Your task to perform on an android device: toggle location history Image 0: 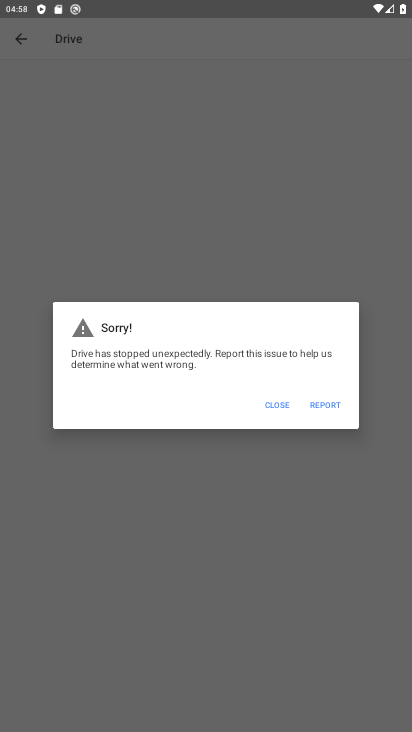
Step 0: press back button
Your task to perform on an android device: toggle location history Image 1: 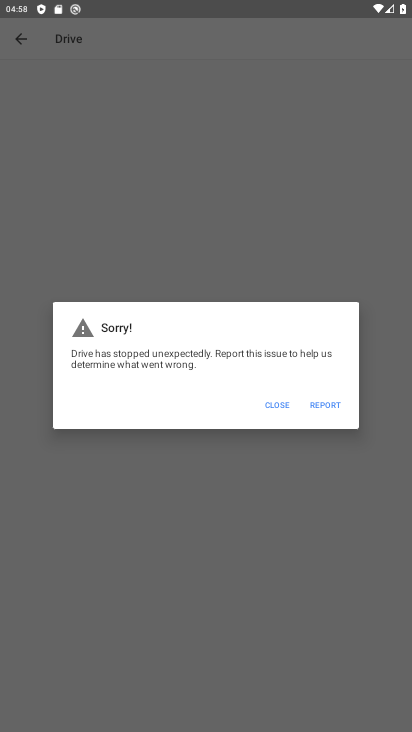
Step 1: press back button
Your task to perform on an android device: toggle location history Image 2: 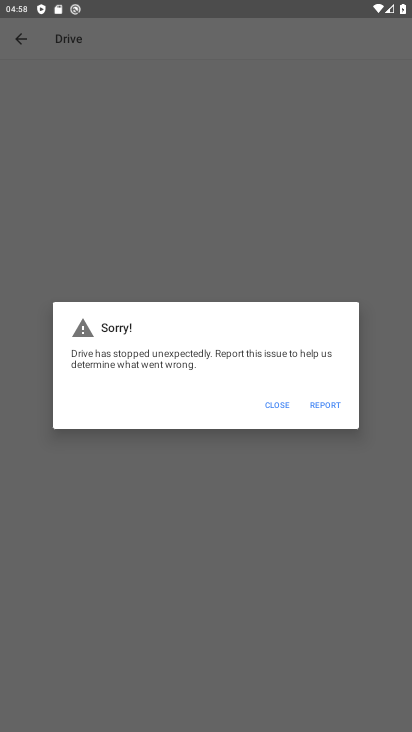
Step 2: press back button
Your task to perform on an android device: toggle location history Image 3: 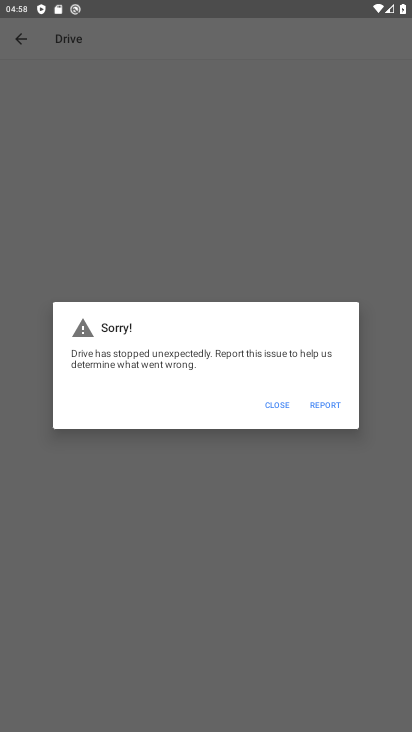
Step 3: press back button
Your task to perform on an android device: toggle location history Image 4: 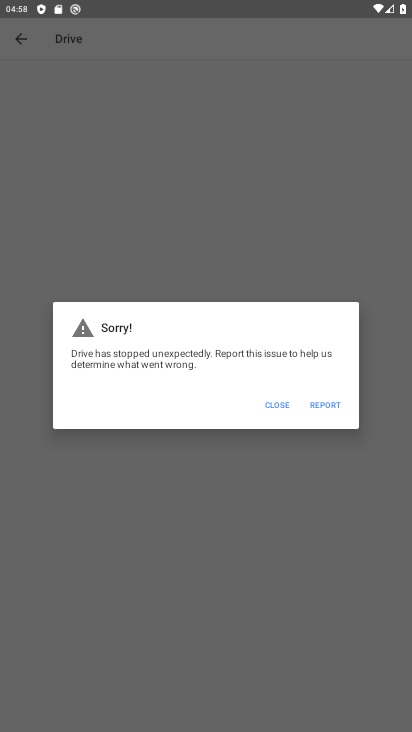
Step 4: press home button
Your task to perform on an android device: toggle location history Image 5: 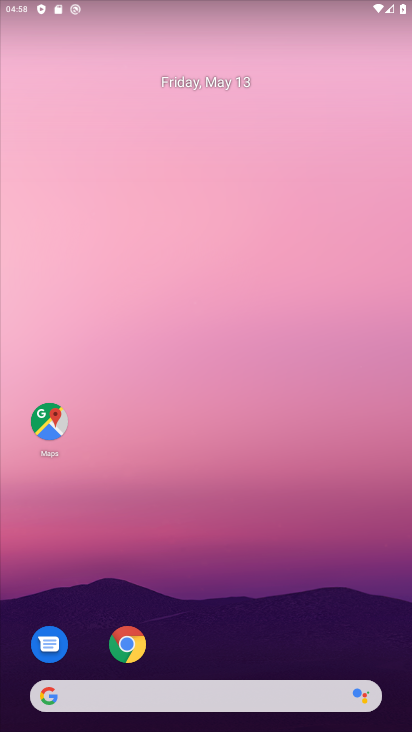
Step 5: drag from (229, 626) to (309, 51)
Your task to perform on an android device: toggle location history Image 6: 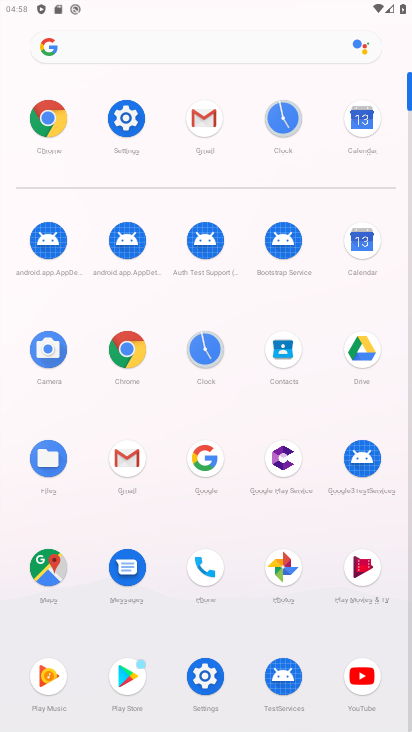
Step 6: click (137, 139)
Your task to perform on an android device: toggle location history Image 7: 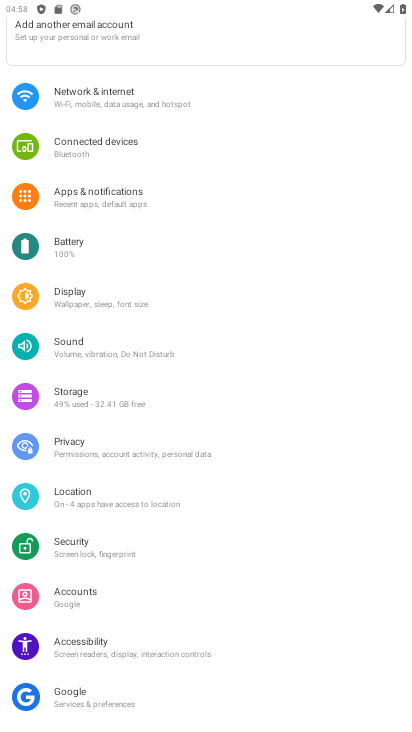
Step 7: click (74, 503)
Your task to perform on an android device: toggle location history Image 8: 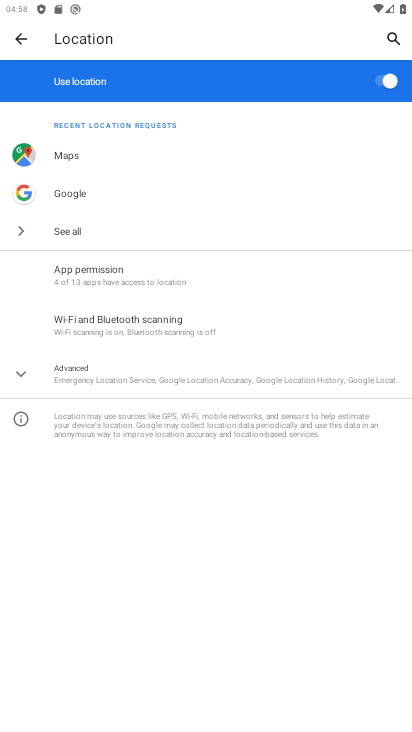
Step 8: click (102, 375)
Your task to perform on an android device: toggle location history Image 9: 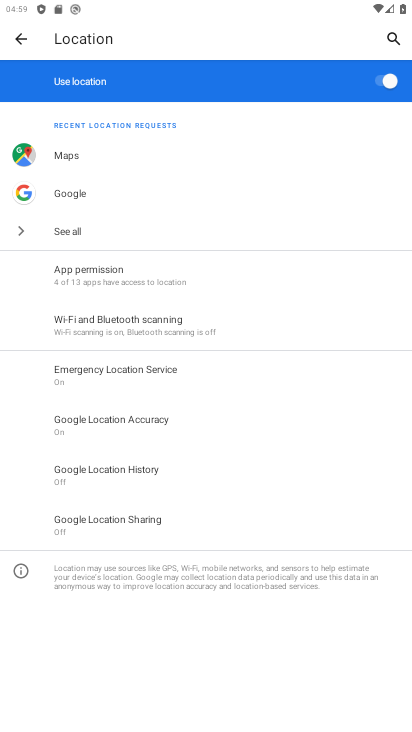
Step 9: click (118, 473)
Your task to perform on an android device: toggle location history Image 10: 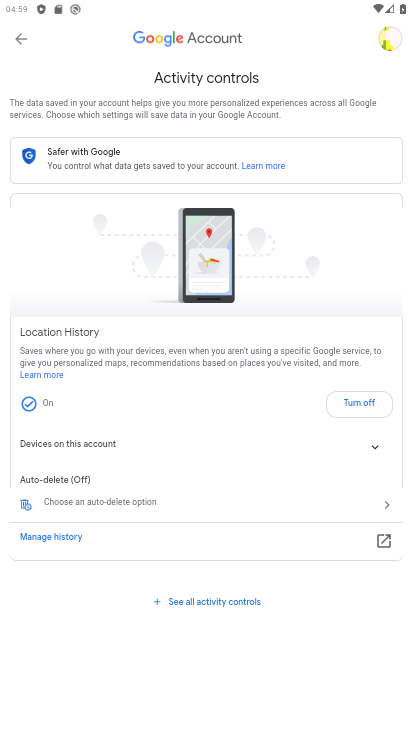
Step 10: click (366, 410)
Your task to perform on an android device: toggle location history Image 11: 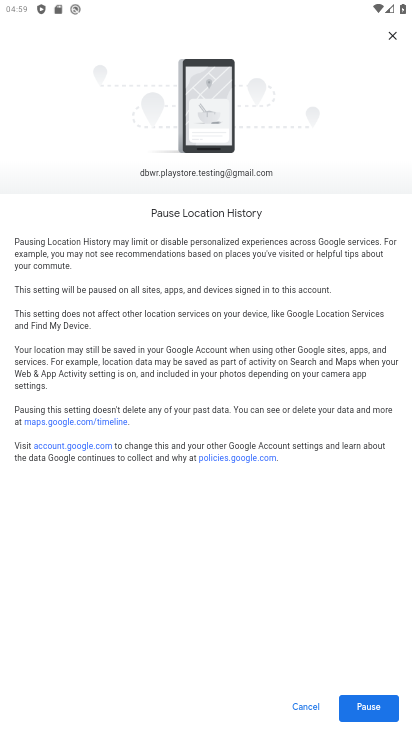
Step 11: click (360, 706)
Your task to perform on an android device: toggle location history Image 12: 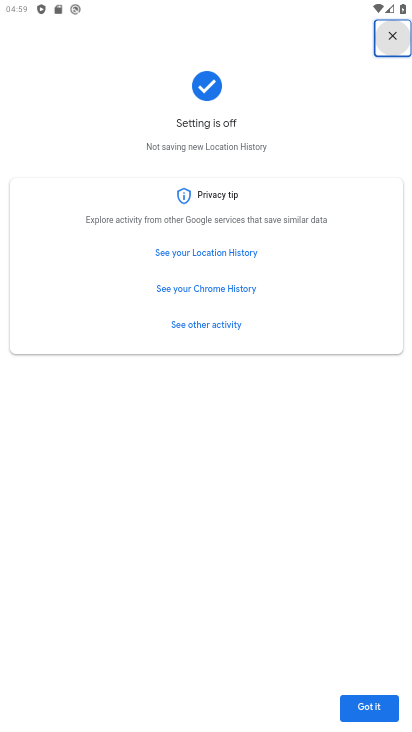
Step 12: click (374, 716)
Your task to perform on an android device: toggle location history Image 13: 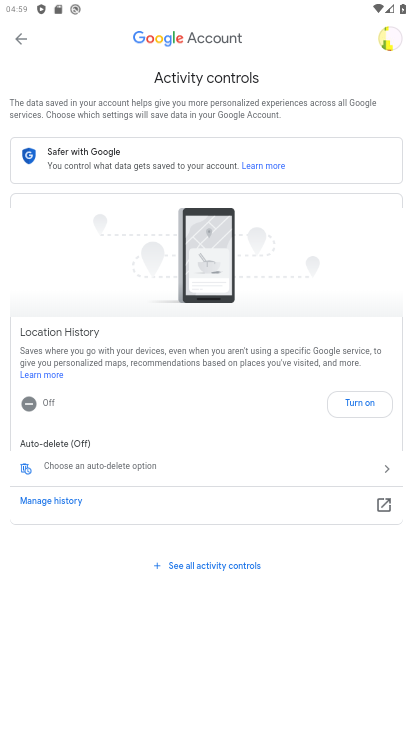
Step 13: task complete